Your task to perform on an android device: Check the news Image 0: 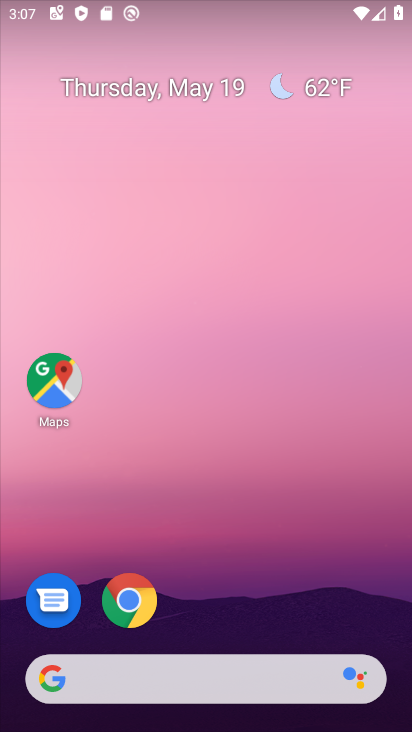
Step 0: press home button
Your task to perform on an android device: Check the news Image 1: 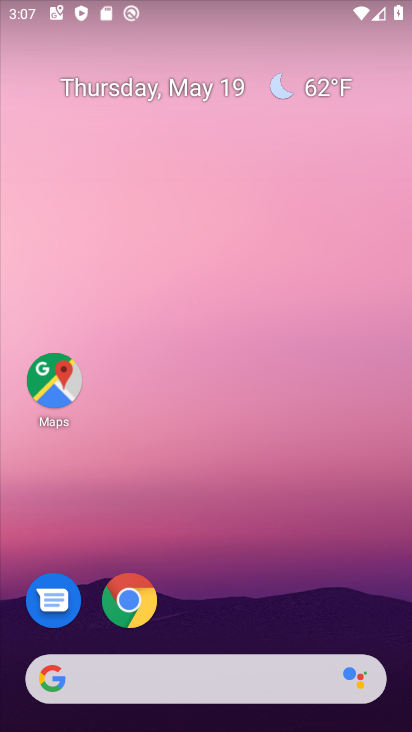
Step 1: click (211, 686)
Your task to perform on an android device: Check the news Image 2: 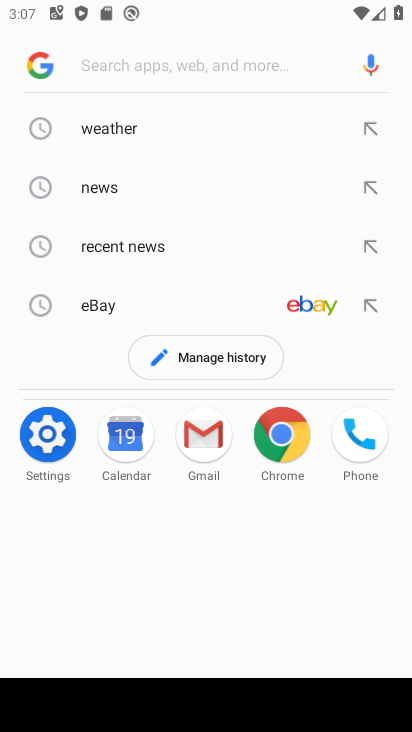
Step 2: click (102, 189)
Your task to perform on an android device: Check the news Image 3: 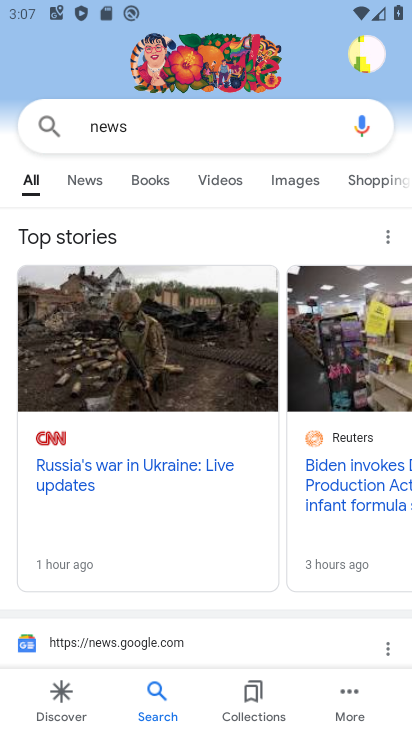
Step 3: task complete